Your task to perform on an android device: check out phone information Image 0: 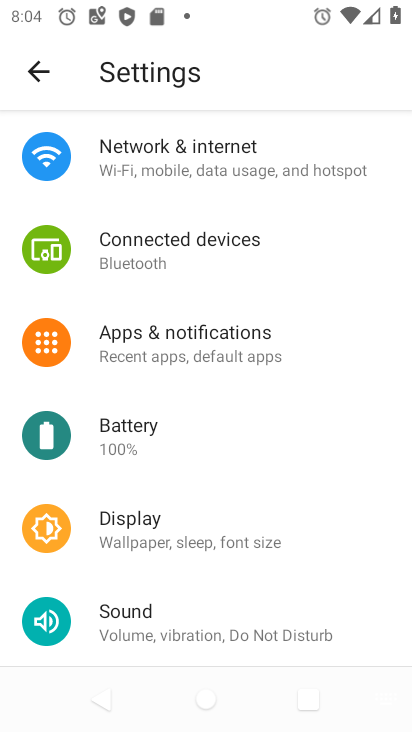
Step 0: drag from (239, 527) to (198, 5)
Your task to perform on an android device: check out phone information Image 1: 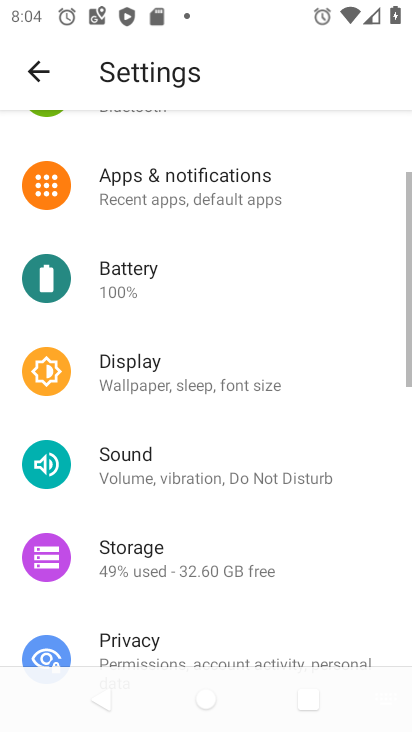
Step 1: drag from (235, 548) to (206, 24)
Your task to perform on an android device: check out phone information Image 2: 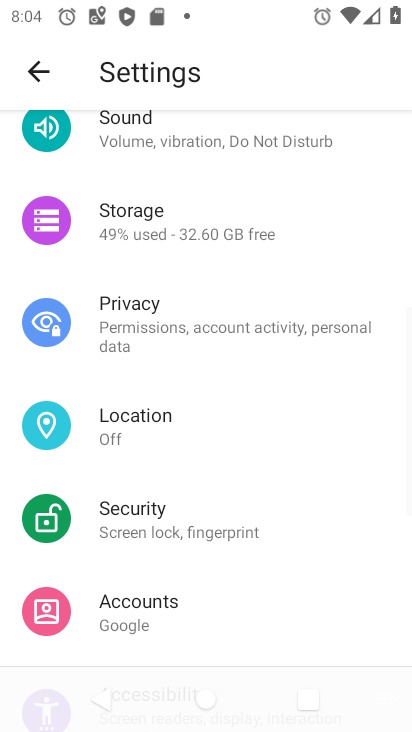
Step 2: drag from (218, 589) to (203, 112)
Your task to perform on an android device: check out phone information Image 3: 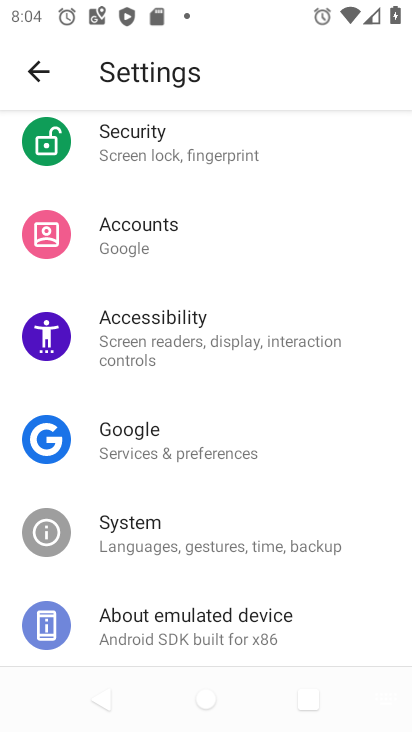
Step 3: click (200, 637)
Your task to perform on an android device: check out phone information Image 4: 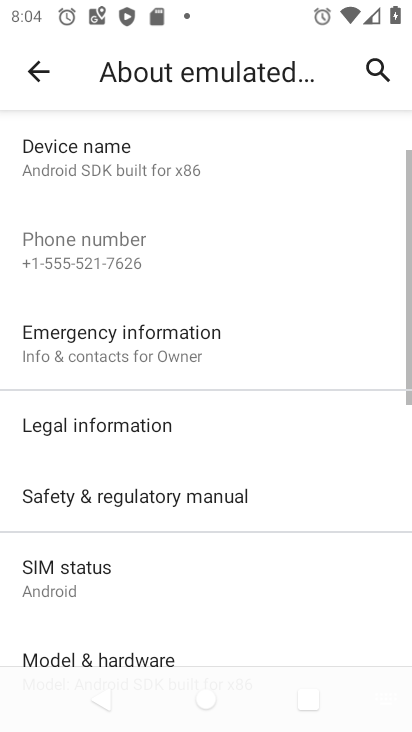
Step 4: task complete